Your task to perform on an android device: Go to Maps Image 0: 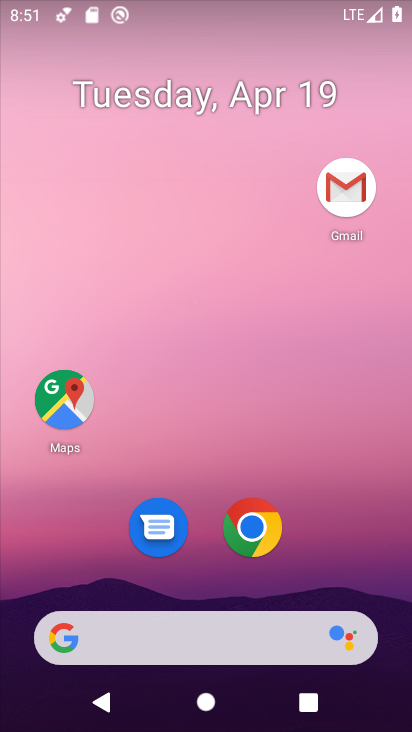
Step 0: drag from (356, 560) to (311, 118)
Your task to perform on an android device: Go to Maps Image 1: 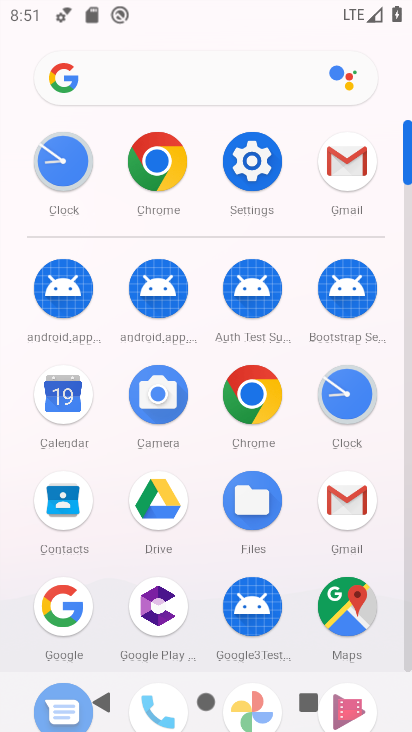
Step 1: click (339, 598)
Your task to perform on an android device: Go to Maps Image 2: 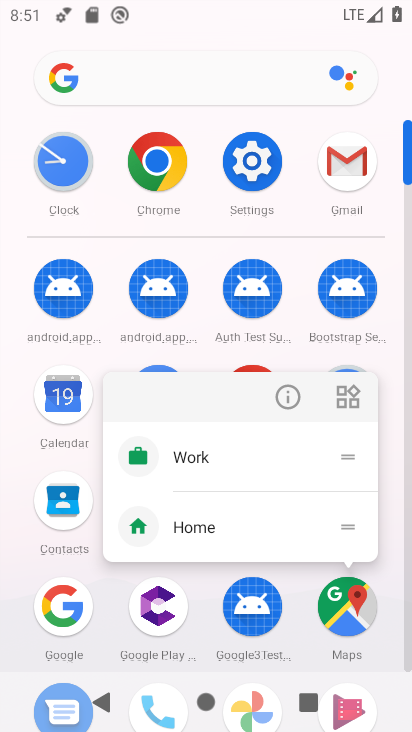
Step 2: click (349, 620)
Your task to perform on an android device: Go to Maps Image 3: 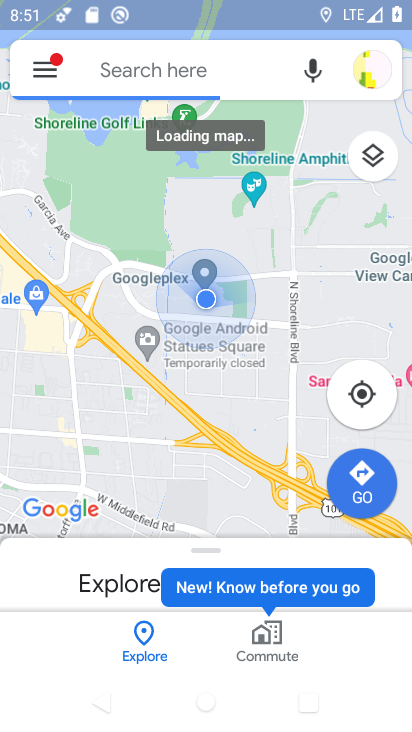
Step 3: click (204, 68)
Your task to perform on an android device: Go to Maps Image 4: 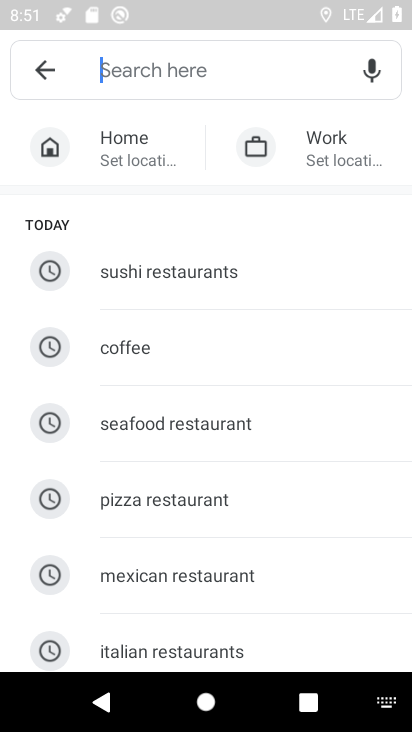
Step 4: click (38, 64)
Your task to perform on an android device: Go to Maps Image 5: 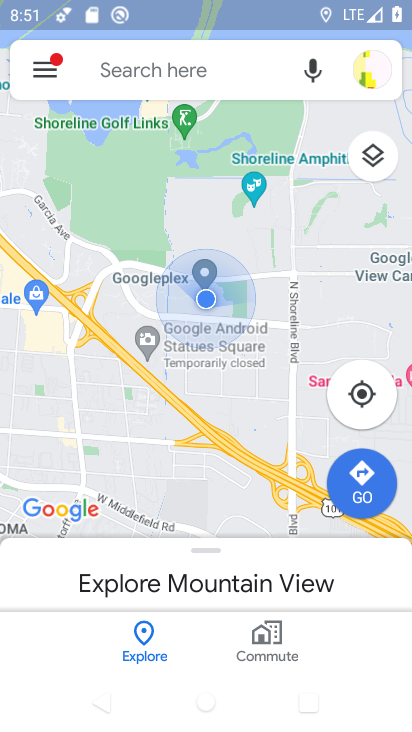
Step 5: task complete